Your task to perform on an android device: change keyboard looks Image 0: 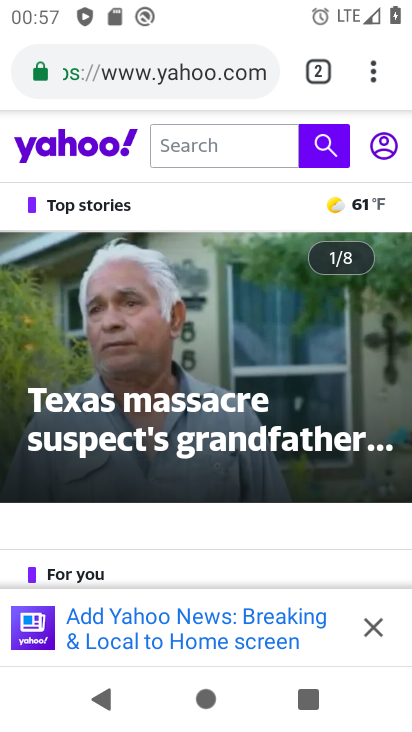
Step 0: press home button
Your task to perform on an android device: change keyboard looks Image 1: 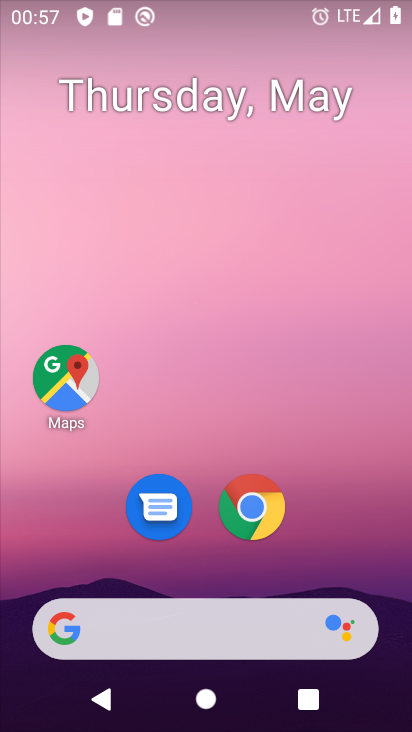
Step 1: drag from (214, 574) to (264, 213)
Your task to perform on an android device: change keyboard looks Image 2: 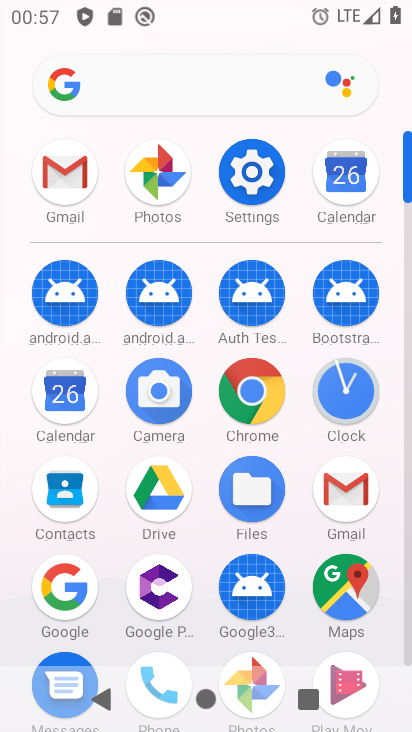
Step 2: click (265, 154)
Your task to perform on an android device: change keyboard looks Image 3: 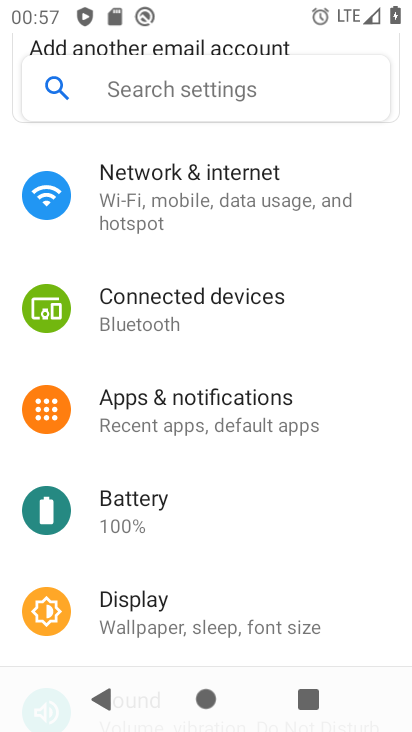
Step 3: drag from (192, 586) to (212, 239)
Your task to perform on an android device: change keyboard looks Image 4: 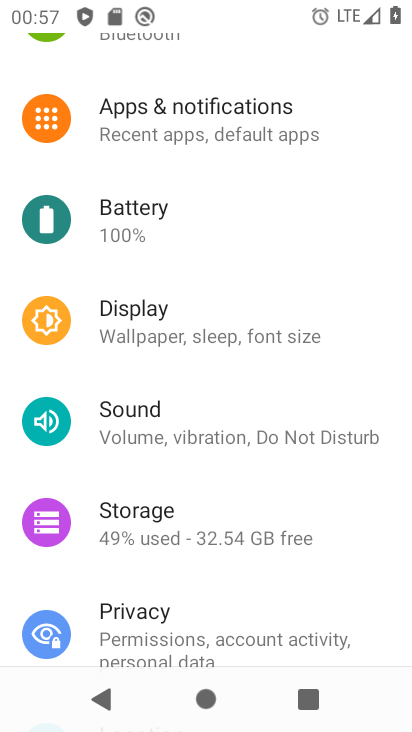
Step 4: drag from (284, 566) to (280, 243)
Your task to perform on an android device: change keyboard looks Image 5: 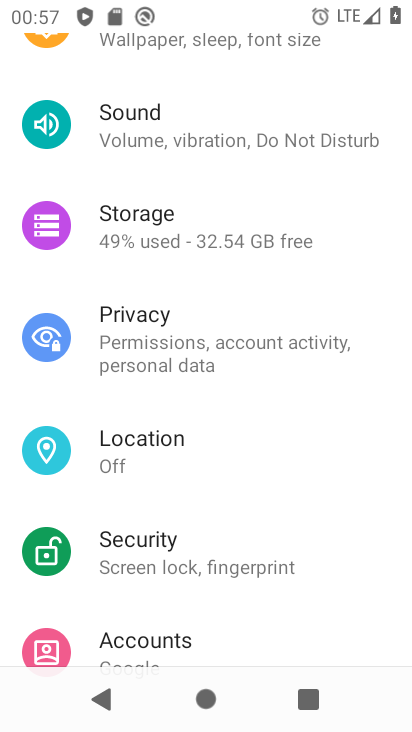
Step 5: drag from (281, 627) to (290, 385)
Your task to perform on an android device: change keyboard looks Image 6: 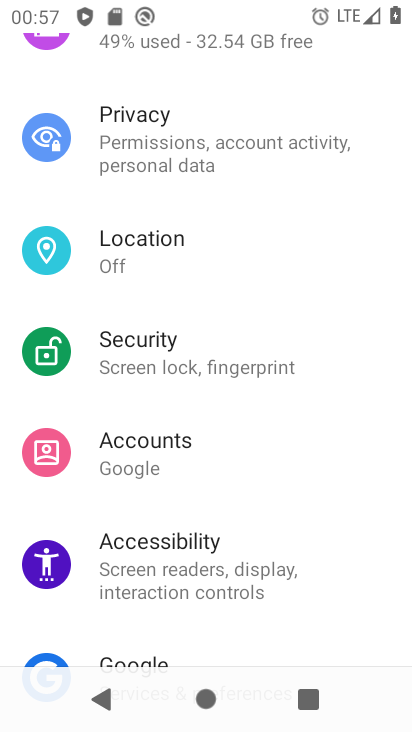
Step 6: drag from (283, 566) to (305, 267)
Your task to perform on an android device: change keyboard looks Image 7: 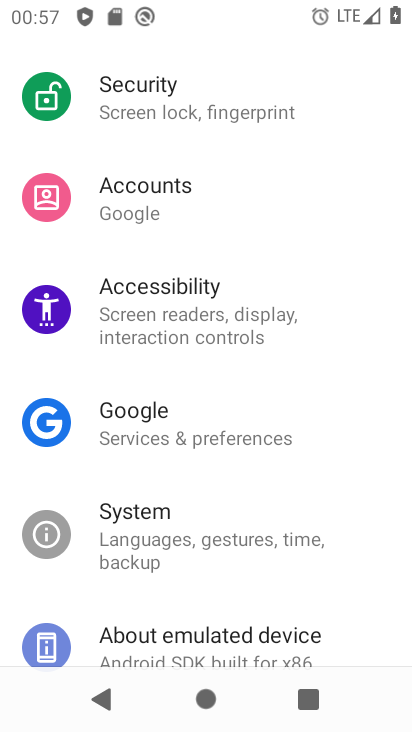
Step 7: drag from (221, 583) to (233, 289)
Your task to perform on an android device: change keyboard looks Image 8: 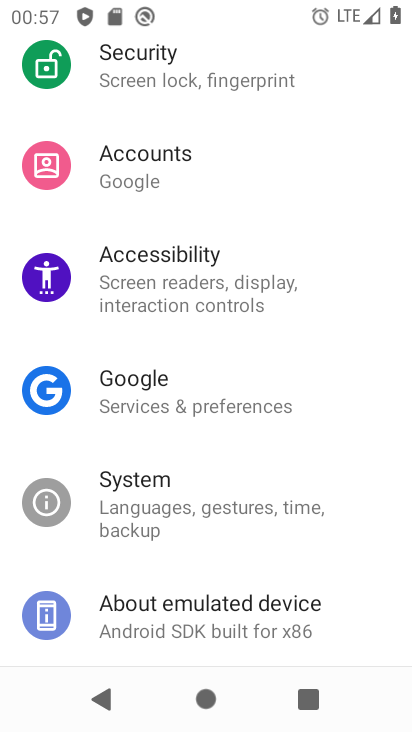
Step 8: drag from (271, 562) to (265, 394)
Your task to perform on an android device: change keyboard looks Image 9: 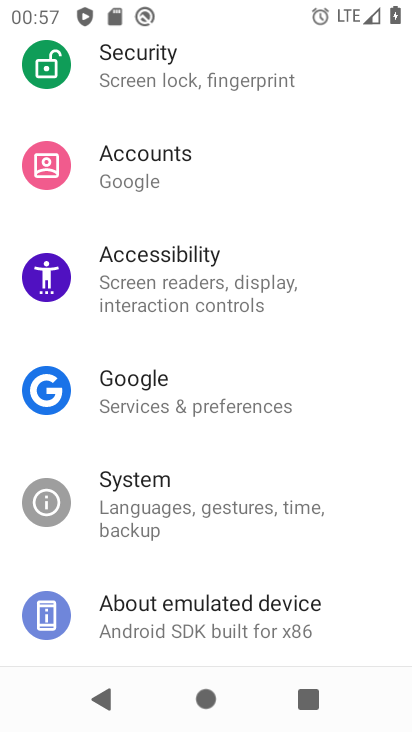
Step 9: click (220, 482)
Your task to perform on an android device: change keyboard looks Image 10: 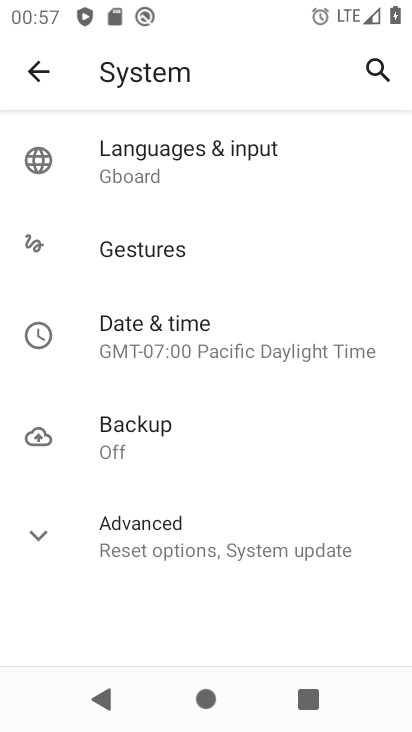
Step 10: click (212, 155)
Your task to perform on an android device: change keyboard looks Image 11: 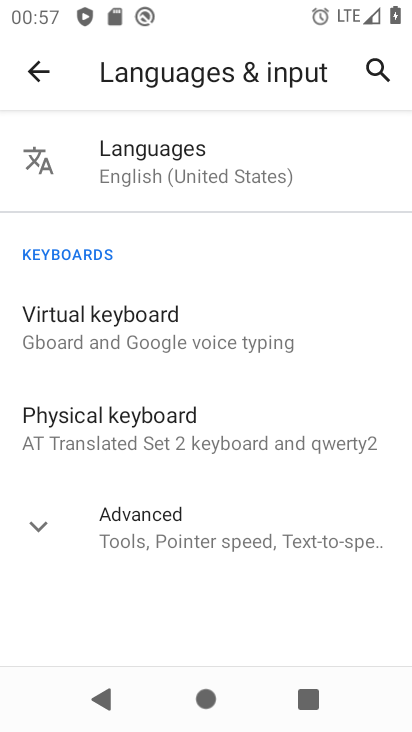
Step 11: click (187, 319)
Your task to perform on an android device: change keyboard looks Image 12: 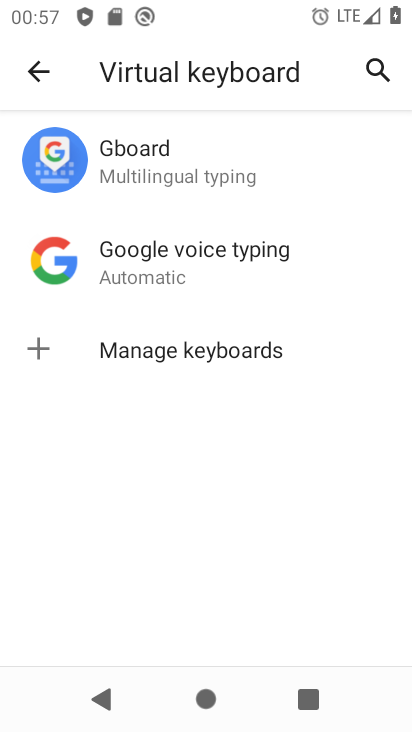
Step 12: click (186, 173)
Your task to perform on an android device: change keyboard looks Image 13: 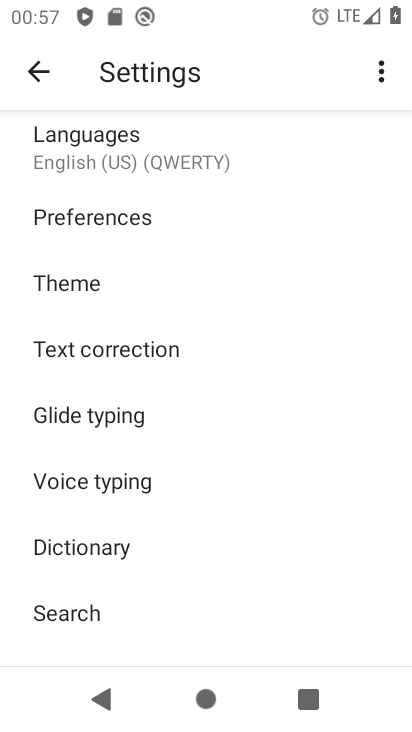
Step 13: click (108, 275)
Your task to perform on an android device: change keyboard looks Image 14: 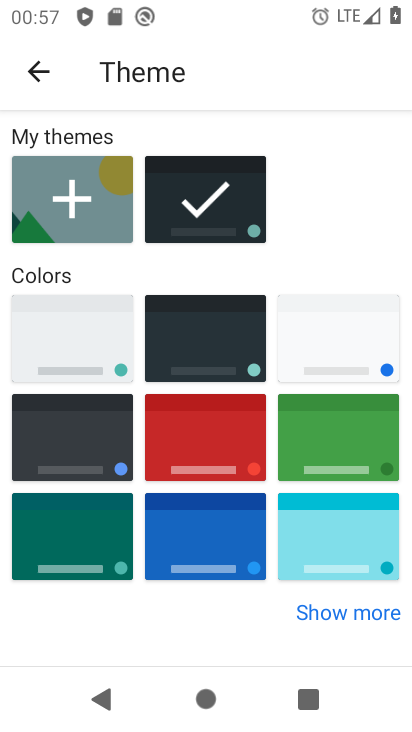
Step 14: click (321, 310)
Your task to perform on an android device: change keyboard looks Image 15: 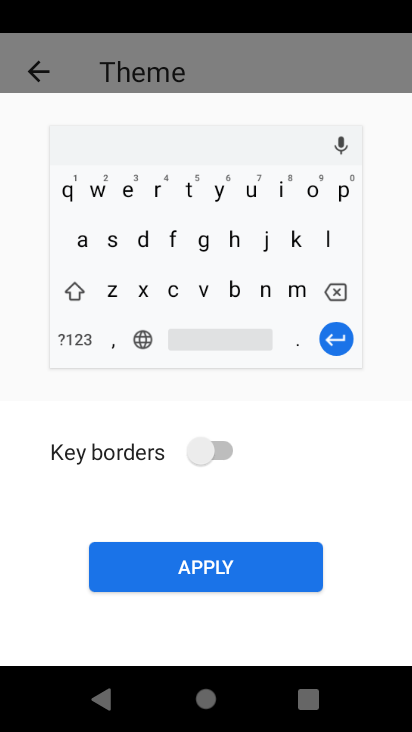
Step 15: click (224, 589)
Your task to perform on an android device: change keyboard looks Image 16: 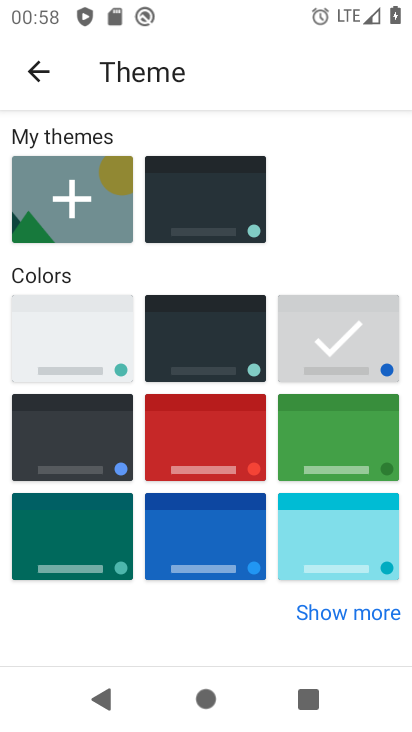
Step 16: task complete